Your task to perform on an android device: Go to Google maps Image 0: 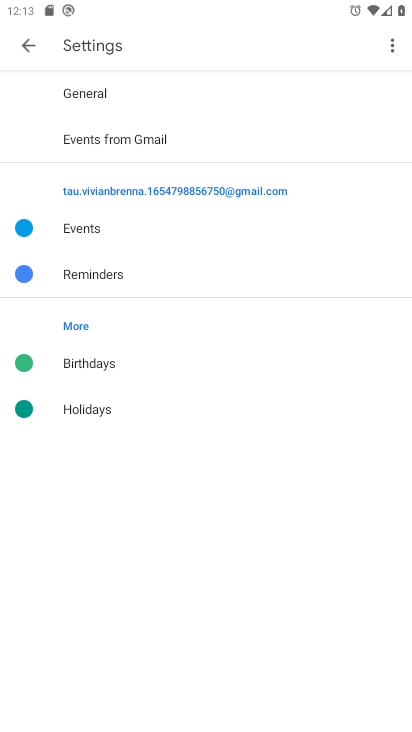
Step 0: press home button
Your task to perform on an android device: Go to Google maps Image 1: 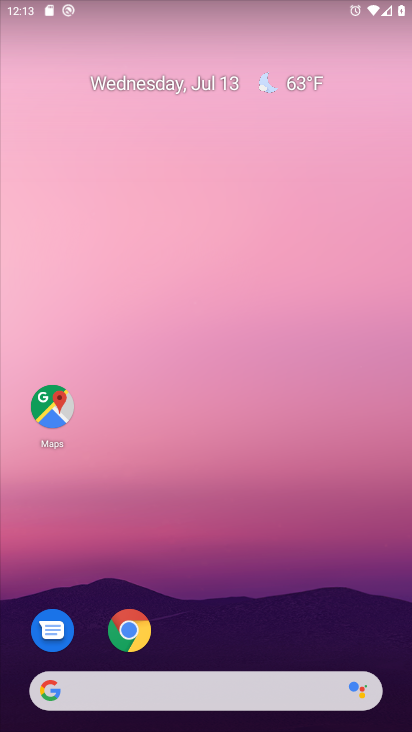
Step 1: click (61, 430)
Your task to perform on an android device: Go to Google maps Image 2: 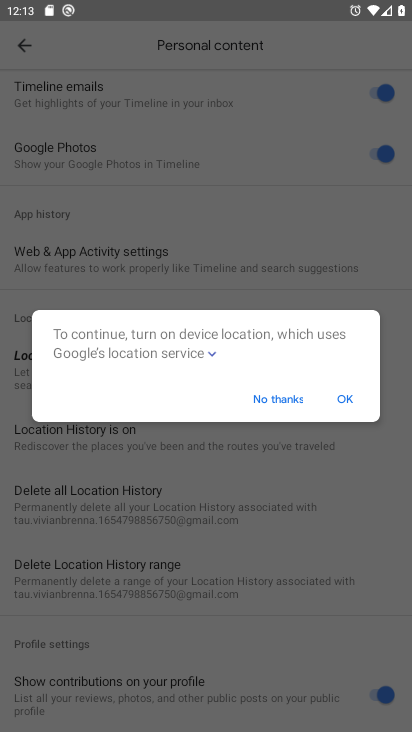
Step 2: press back button
Your task to perform on an android device: Go to Google maps Image 3: 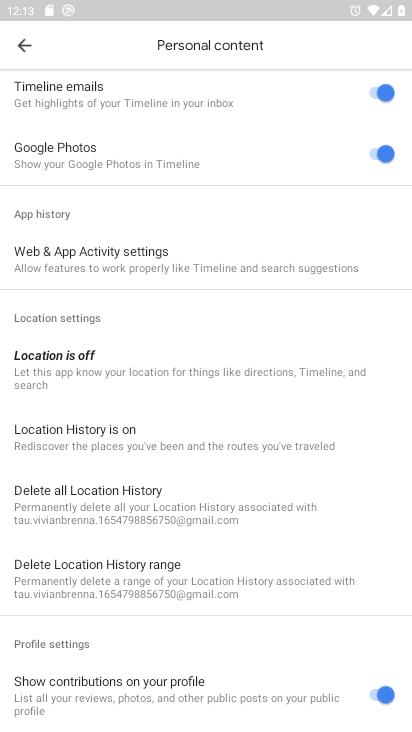
Step 3: press home button
Your task to perform on an android device: Go to Google maps Image 4: 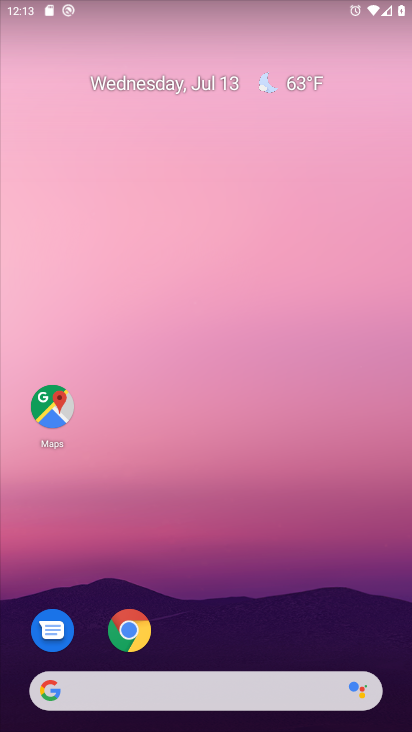
Step 4: click (47, 423)
Your task to perform on an android device: Go to Google maps Image 5: 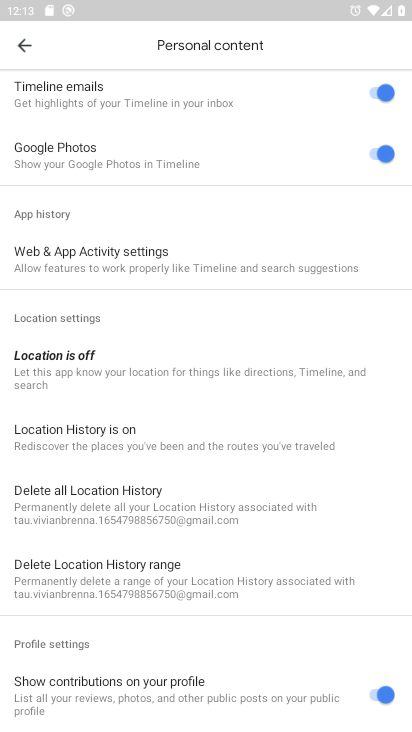
Step 5: click (19, 45)
Your task to perform on an android device: Go to Google maps Image 6: 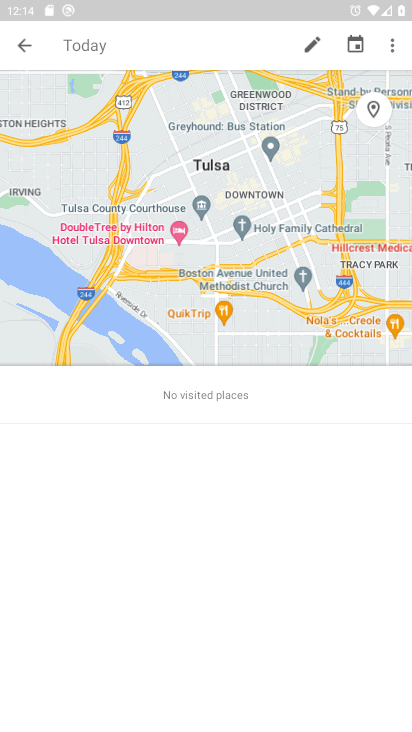
Step 6: click (19, 45)
Your task to perform on an android device: Go to Google maps Image 7: 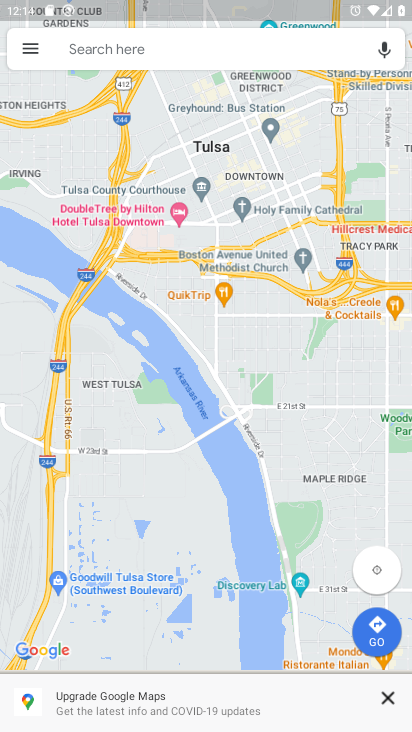
Step 7: task complete